Your task to perform on an android device: set default search engine in the chrome app Image 0: 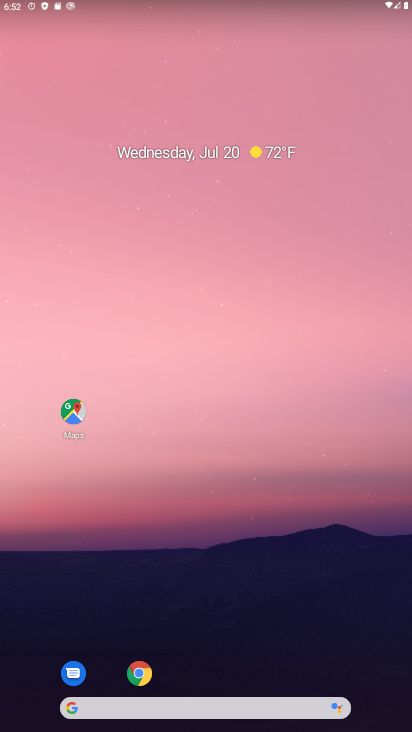
Step 0: drag from (371, 677) to (198, 3)
Your task to perform on an android device: set default search engine in the chrome app Image 1: 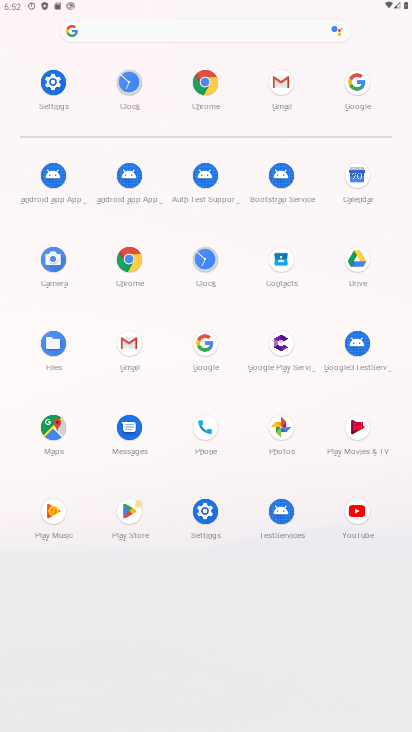
Step 1: click (204, 87)
Your task to perform on an android device: set default search engine in the chrome app Image 2: 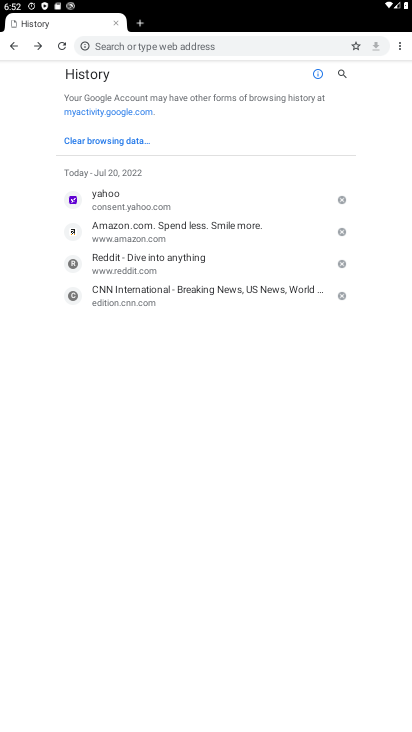
Step 2: click (396, 43)
Your task to perform on an android device: set default search engine in the chrome app Image 3: 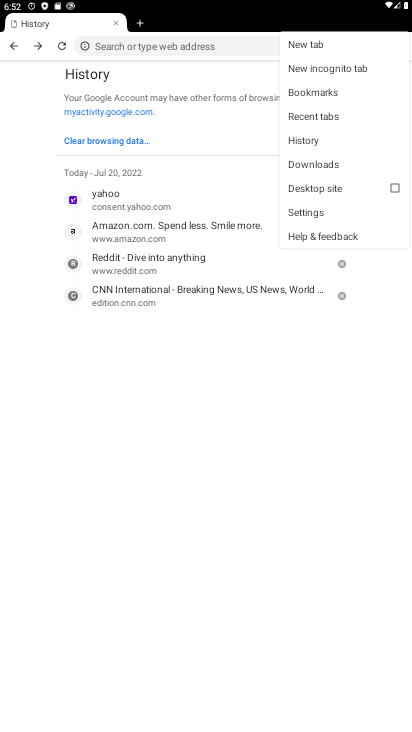
Step 3: click (305, 213)
Your task to perform on an android device: set default search engine in the chrome app Image 4: 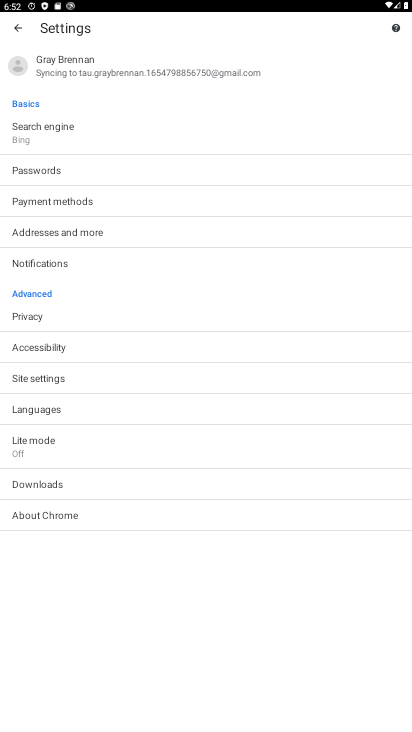
Step 4: click (66, 135)
Your task to perform on an android device: set default search engine in the chrome app Image 5: 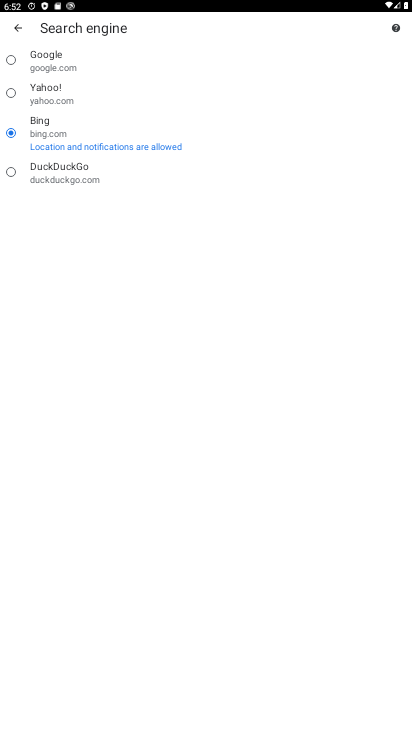
Step 5: click (40, 54)
Your task to perform on an android device: set default search engine in the chrome app Image 6: 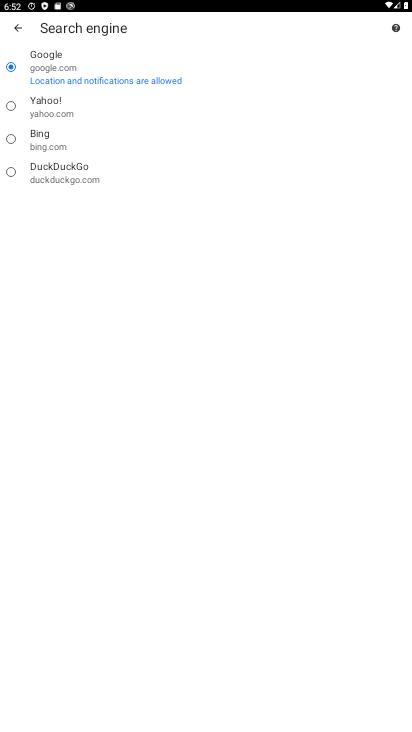
Step 6: task complete